Your task to perform on an android device: Is it going to rain this weekend? Image 0: 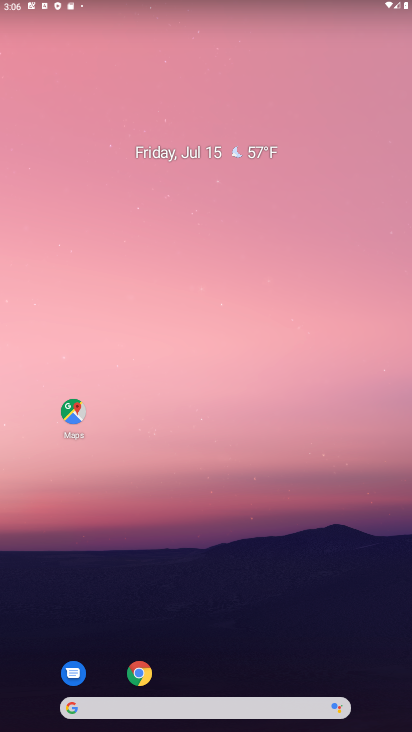
Step 0: click (251, 155)
Your task to perform on an android device: Is it going to rain this weekend? Image 1: 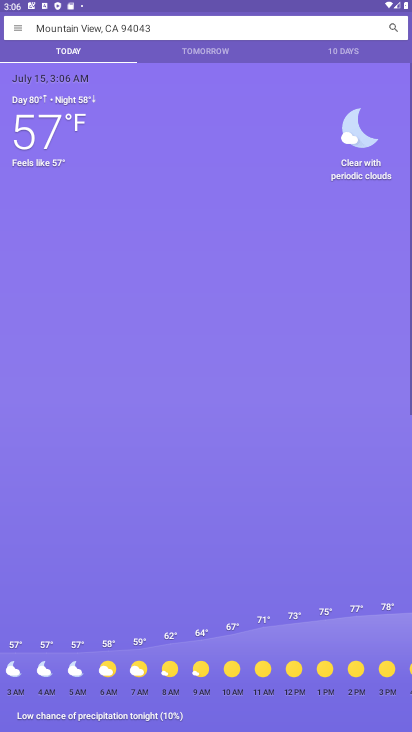
Step 1: click (203, 45)
Your task to perform on an android device: Is it going to rain this weekend? Image 2: 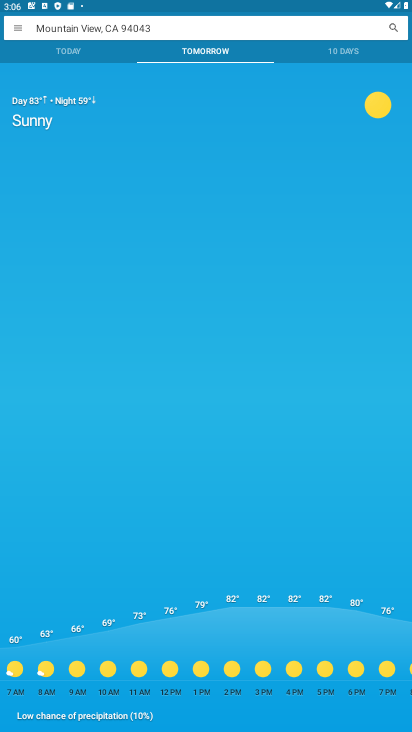
Step 2: click (327, 59)
Your task to perform on an android device: Is it going to rain this weekend? Image 3: 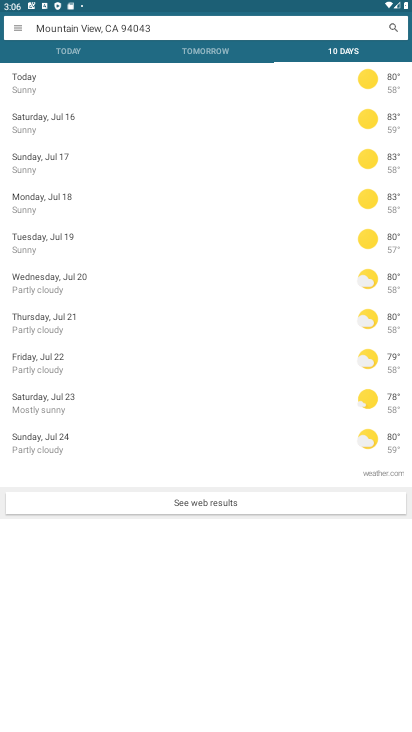
Step 3: task complete